Your task to perform on an android device: open sync settings in chrome Image 0: 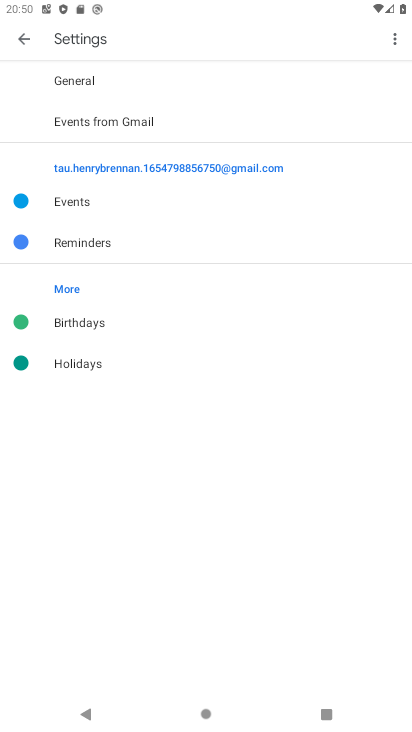
Step 0: press home button
Your task to perform on an android device: open sync settings in chrome Image 1: 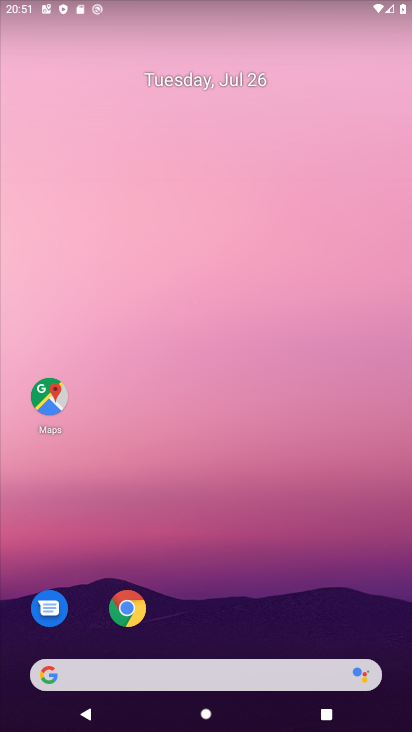
Step 1: click (114, 605)
Your task to perform on an android device: open sync settings in chrome Image 2: 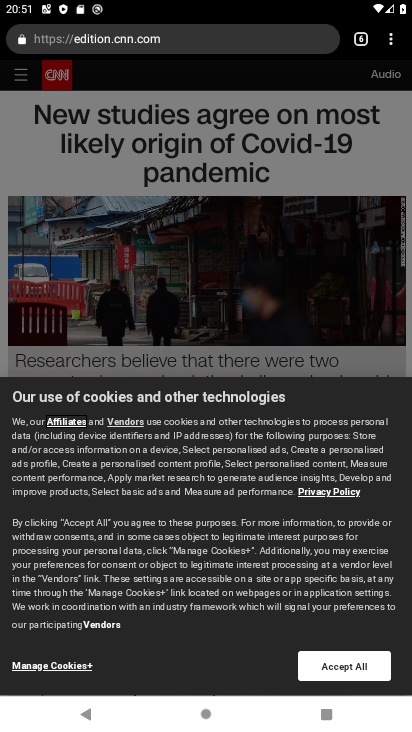
Step 2: click (391, 39)
Your task to perform on an android device: open sync settings in chrome Image 3: 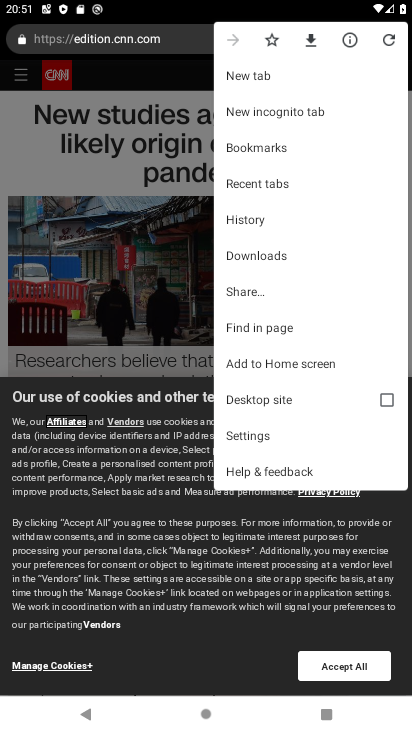
Step 3: click (235, 429)
Your task to perform on an android device: open sync settings in chrome Image 4: 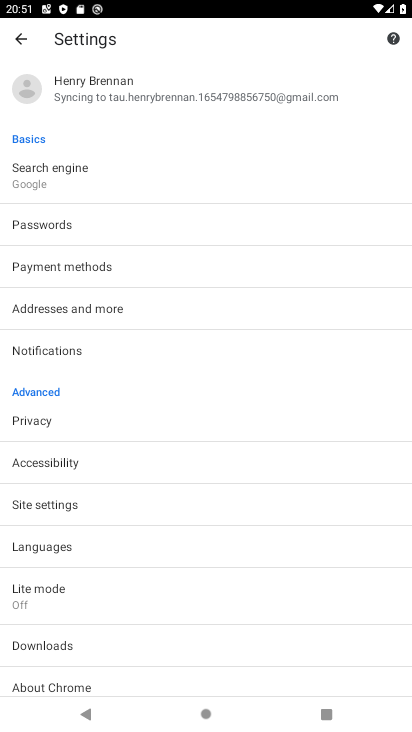
Step 4: click (40, 498)
Your task to perform on an android device: open sync settings in chrome Image 5: 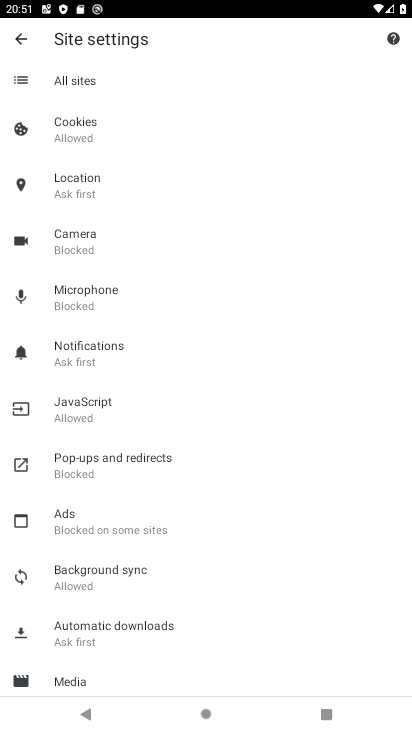
Step 5: click (118, 577)
Your task to perform on an android device: open sync settings in chrome Image 6: 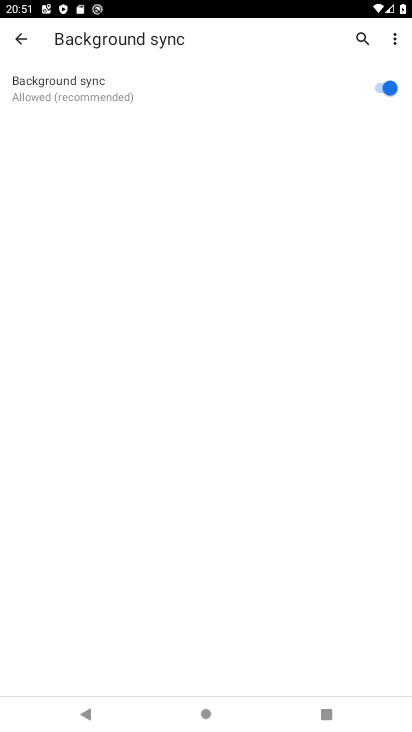
Step 6: task complete